Your task to perform on an android device: show emergency info Image 0: 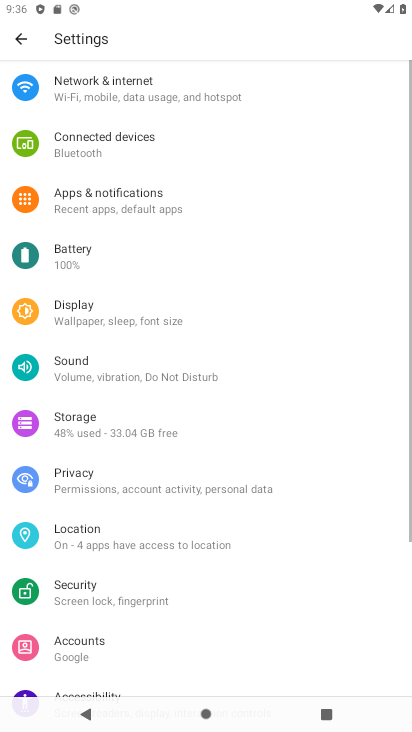
Step 0: drag from (153, 624) to (284, 117)
Your task to perform on an android device: show emergency info Image 1: 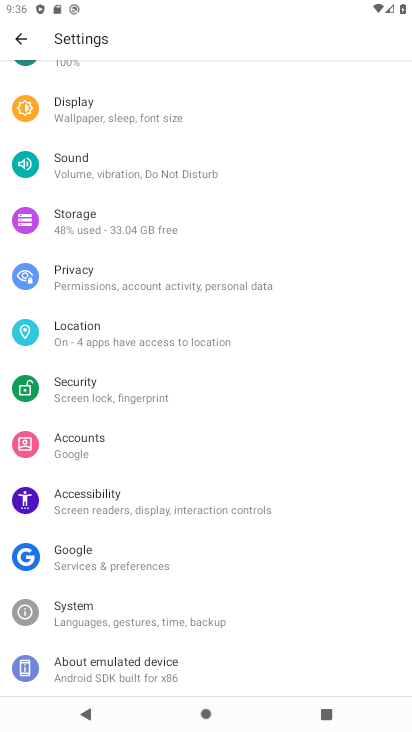
Step 1: click (179, 674)
Your task to perform on an android device: show emergency info Image 2: 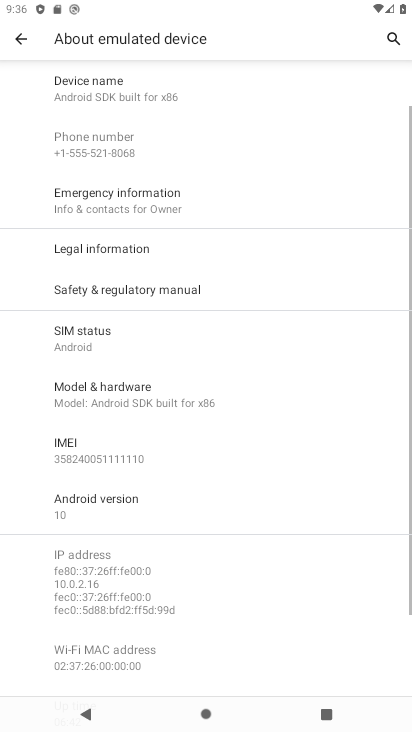
Step 2: click (200, 216)
Your task to perform on an android device: show emergency info Image 3: 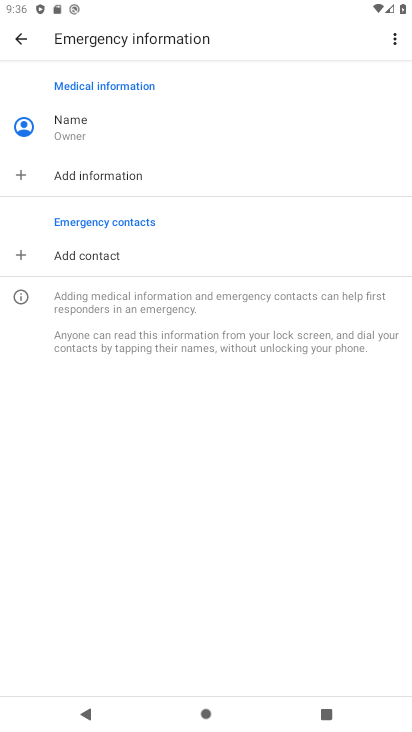
Step 3: task complete